Your task to perform on an android device: all mails in gmail Image 0: 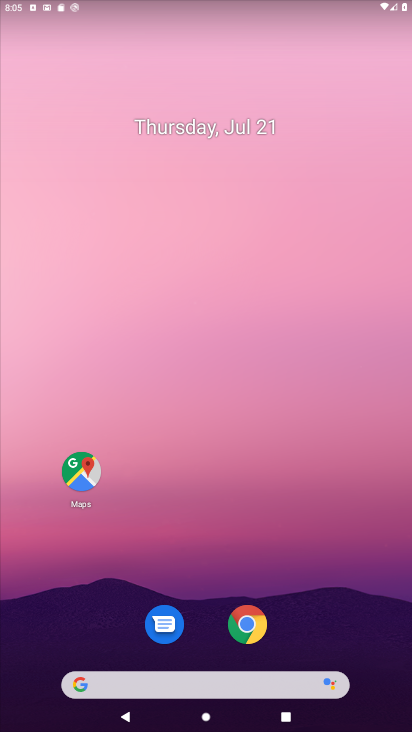
Step 0: drag from (15, 715) to (225, 123)
Your task to perform on an android device: all mails in gmail Image 1: 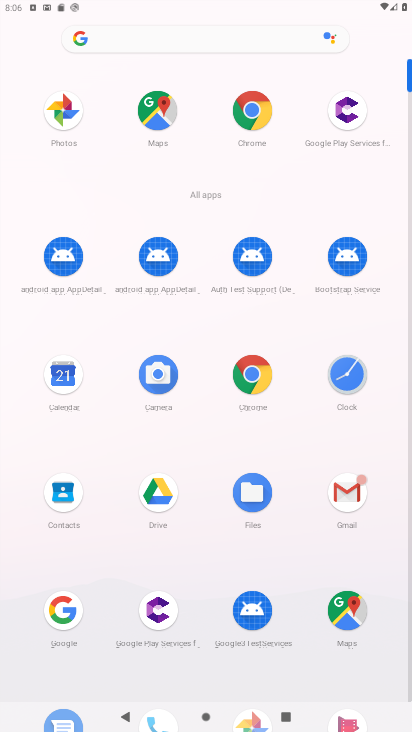
Step 1: click (352, 492)
Your task to perform on an android device: all mails in gmail Image 2: 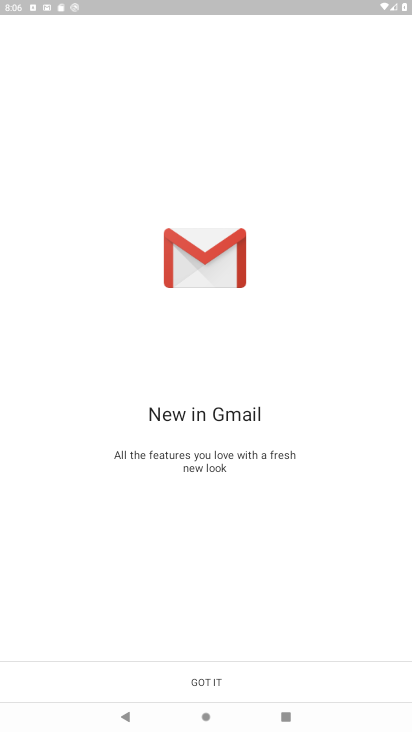
Step 2: click (172, 682)
Your task to perform on an android device: all mails in gmail Image 3: 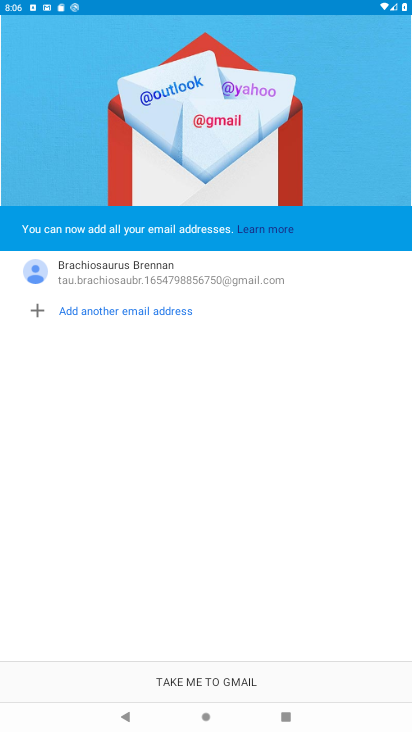
Step 3: click (172, 676)
Your task to perform on an android device: all mails in gmail Image 4: 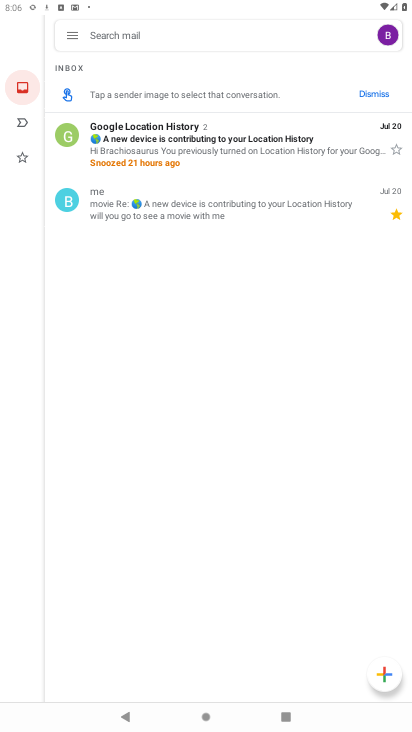
Step 4: click (75, 34)
Your task to perform on an android device: all mails in gmail Image 5: 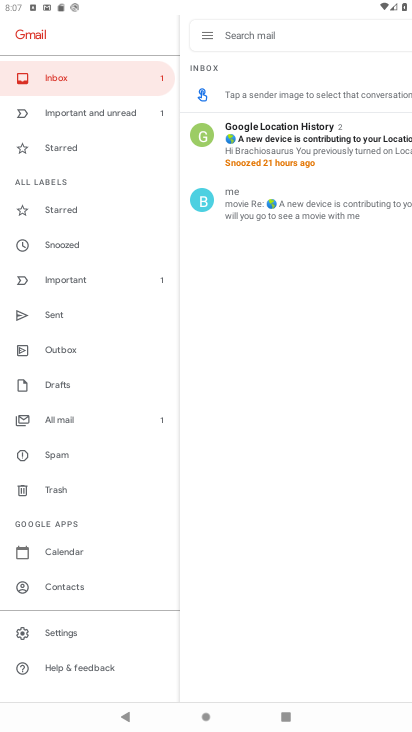
Step 5: task complete